Your task to perform on an android device: Show the shopping cart on bestbuy.com. Search for "usb-c to usb-a" on bestbuy.com, select the first entry, add it to the cart, then select checkout. Image 0: 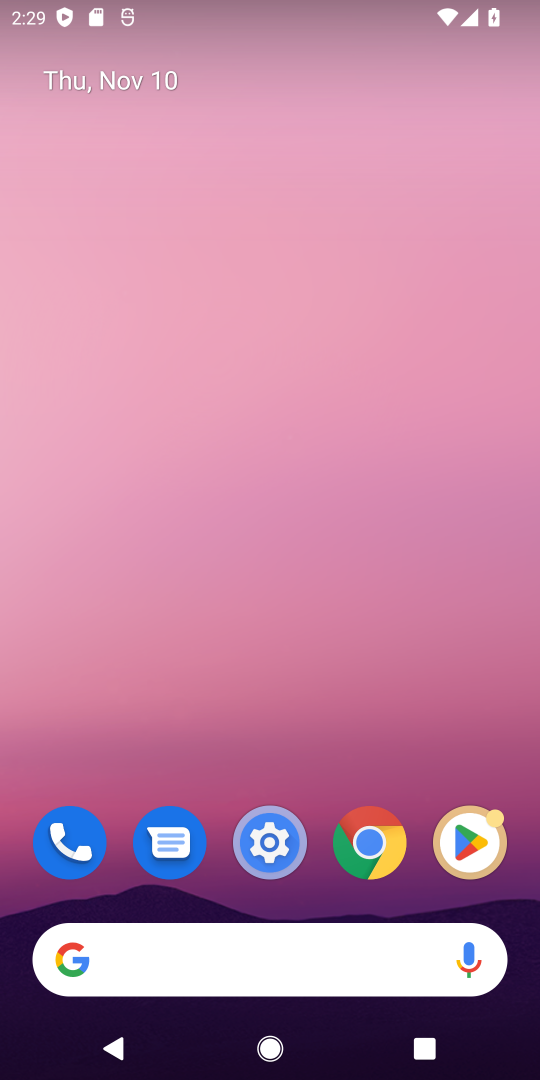
Step 0: press home button
Your task to perform on an android device: Show the shopping cart on bestbuy.com. Search for "usb-c to usb-a" on bestbuy.com, select the first entry, add it to the cart, then select checkout. Image 1: 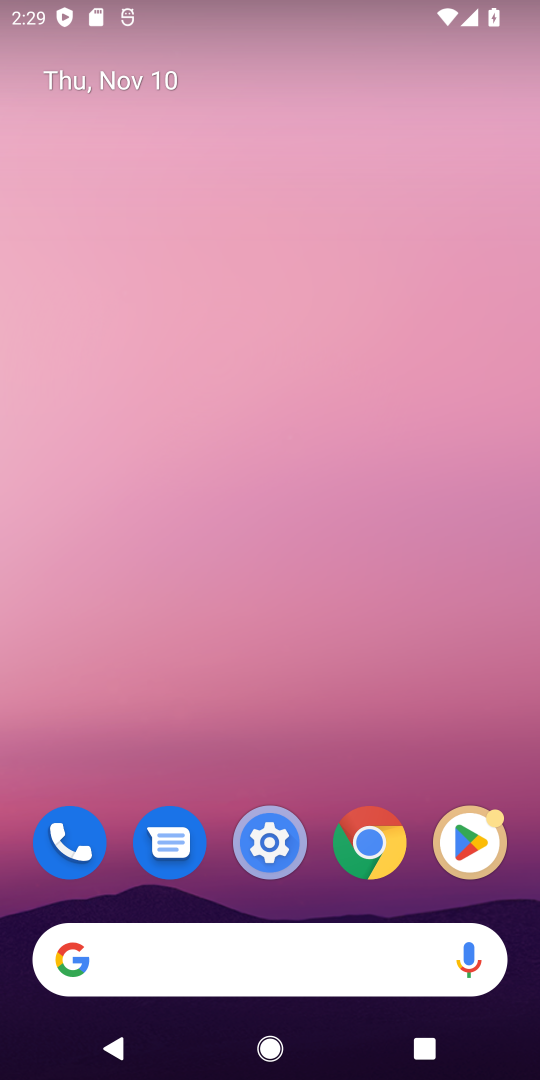
Step 1: click (102, 950)
Your task to perform on an android device: Show the shopping cart on bestbuy.com. Search for "usb-c to usb-a" on bestbuy.com, select the first entry, add it to the cart, then select checkout. Image 2: 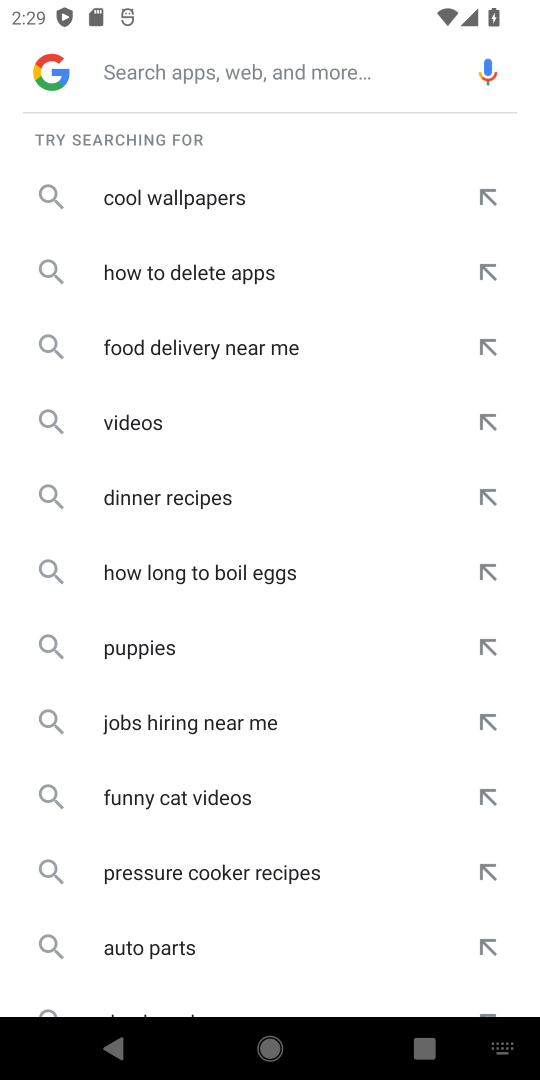
Step 2: type "bestbuy.com"
Your task to perform on an android device: Show the shopping cart on bestbuy.com. Search for "usb-c to usb-a" on bestbuy.com, select the first entry, add it to the cart, then select checkout. Image 3: 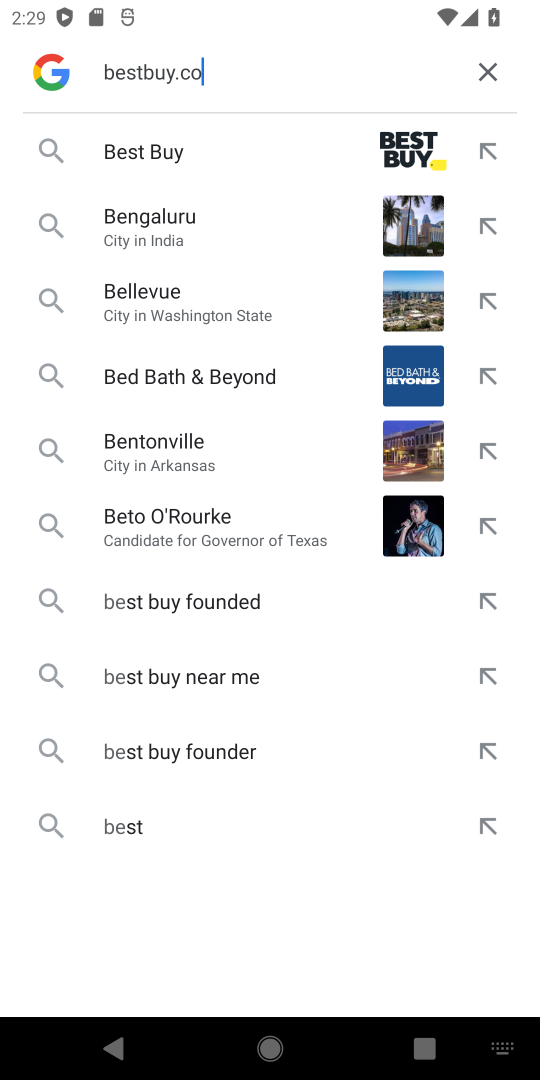
Step 3: press enter
Your task to perform on an android device: Show the shopping cart on bestbuy.com. Search for "usb-c to usb-a" on bestbuy.com, select the first entry, add it to the cart, then select checkout. Image 4: 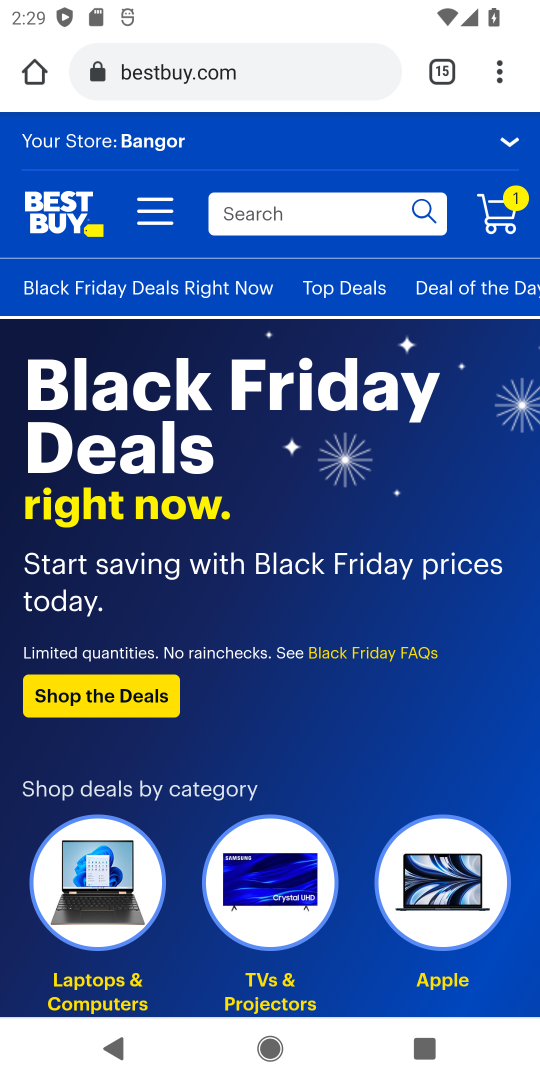
Step 4: click (501, 208)
Your task to perform on an android device: Show the shopping cart on bestbuy.com. Search for "usb-c to usb-a" on bestbuy.com, select the first entry, add it to the cart, then select checkout. Image 5: 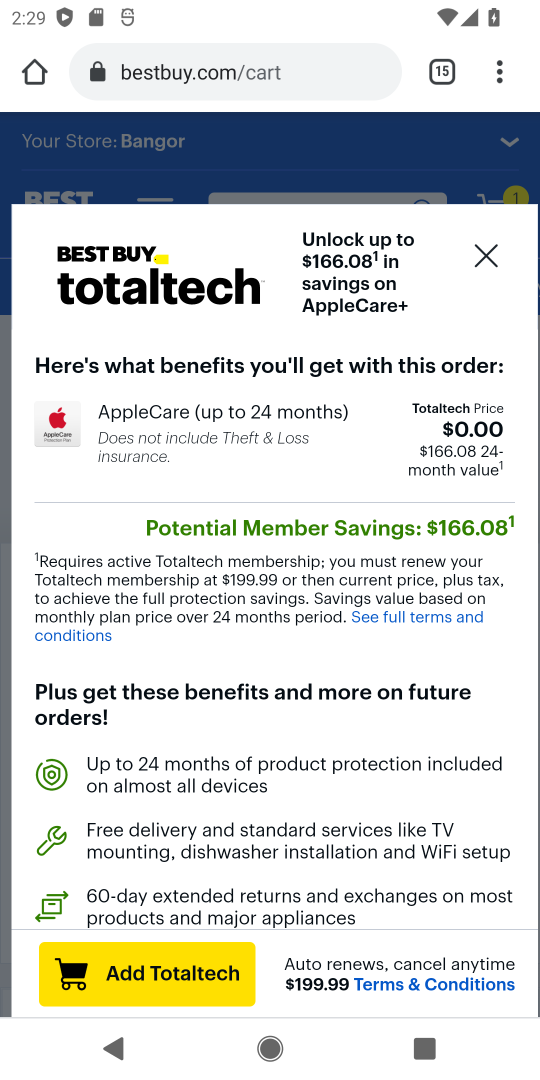
Step 5: click (481, 256)
Your task to perform on an android device: Show the shopping cart on bestbuy.com. Search for "usb-c to usb-a" on bestbuy.com, select the first entry, add it to the cart, then select checkout. Image 6: 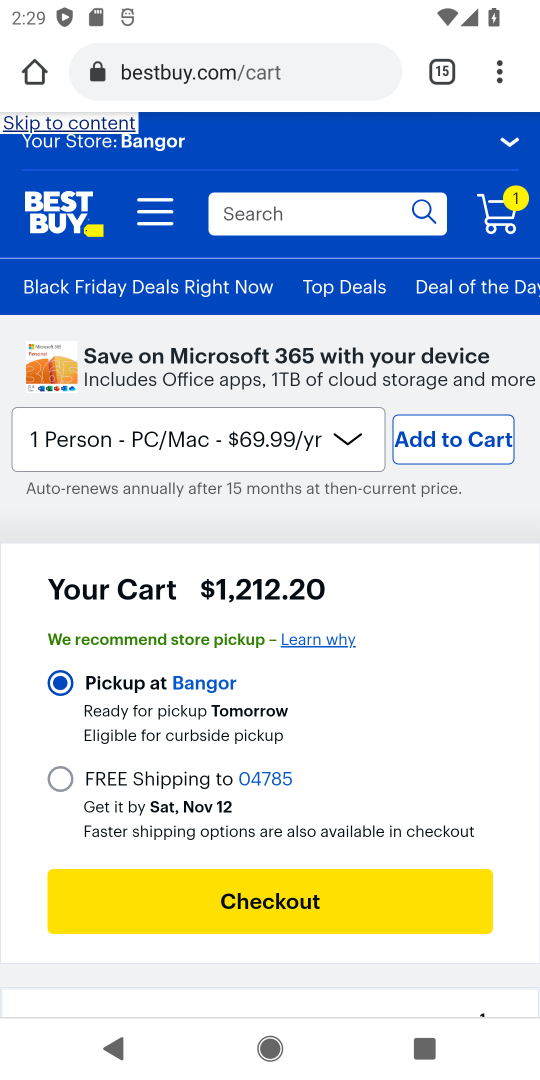
Step 6: click (263, 218)
Your task to perform on an android device: Show the shopping cart on bestbuy.com. Search for "usb-c to usb-a" on bestbuy.com, select the first entry, add it to the cart, then select checkout. Image 7: 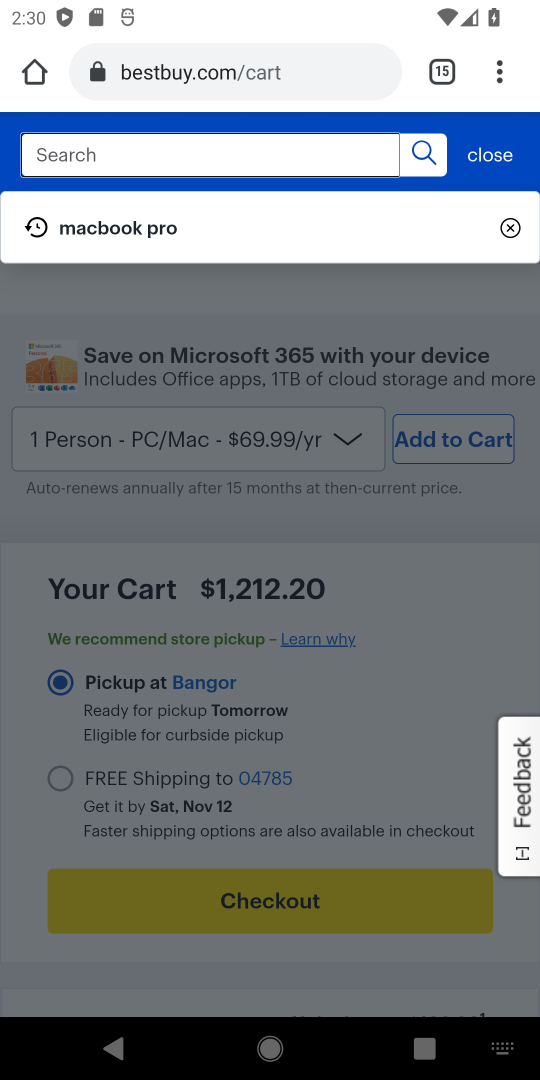
Step 7: type "usb-c to usb"
Your task to perform on an android device: Show the shopping cart on bestbuy.com. Search for "usb-c to usb-a" on bestbuy.com, select the first entry, add it to the cart, then select checkout. Image 8: 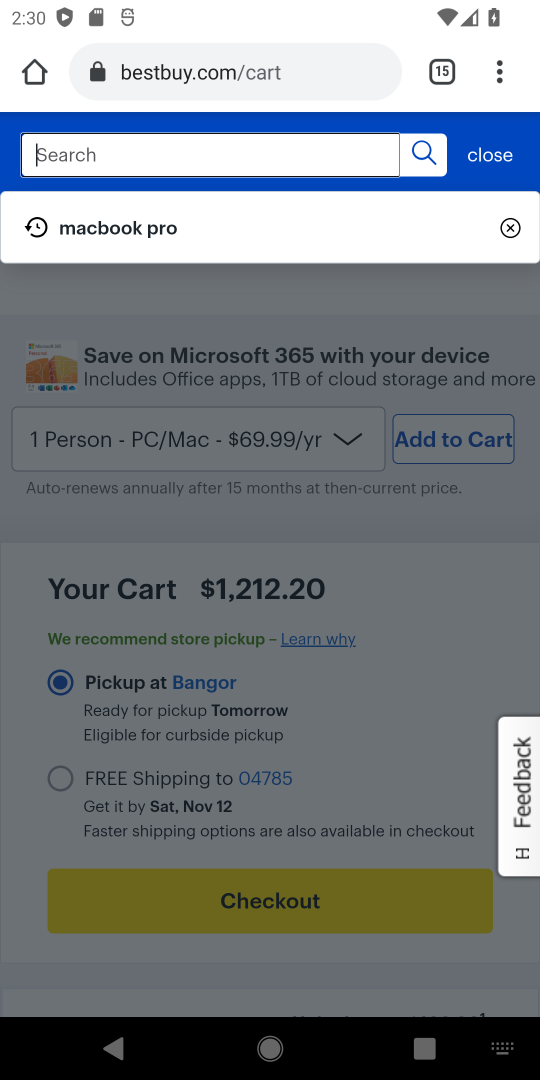
Step 8: press enter
Your task to perform on an android device: Show the shopping cart on bestbuy.com. Search for "usb-c to usb-a" on bestbuy.com, select the first entry, add it to the cart, then select checkout. Image 9: 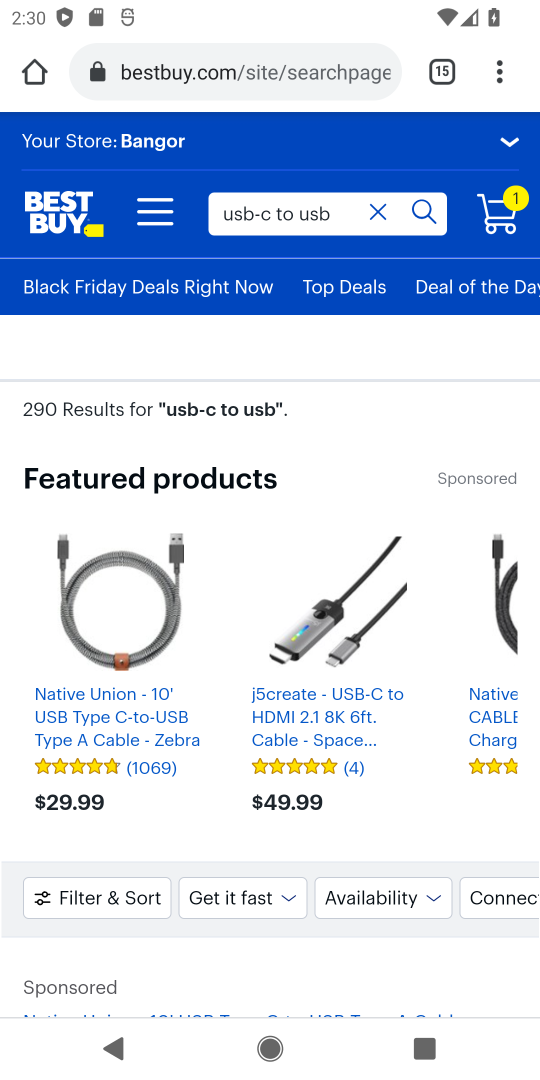
Step 9: drag from (357, 803) to (366, 345)
Your task to perform on an android device: Show the shopping cart on bestbuy.com. Search for "usb-c to usb-a" on bestbuy.com, select the first entry, add it to the cart, then select checkout. Image 10: 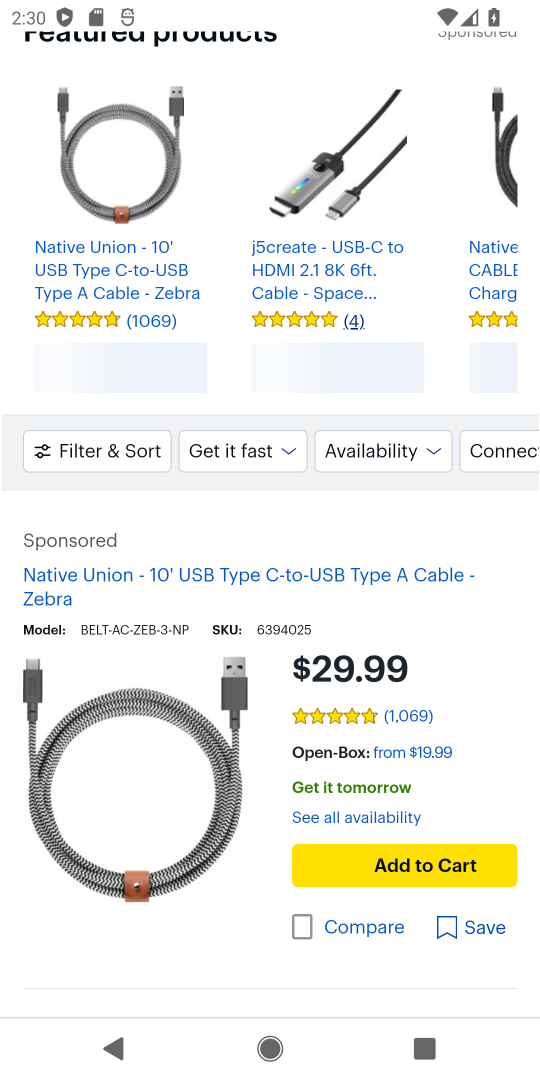
Step 10: drag from (342, 877) to (340, 523)
Your task to perform on an android device: Show the shopping cart on bestbuy.com. Search for "usb-c to usb-a" on bestbuy.com, select the first entry, add it to the cart, then select checkout. Image 11: 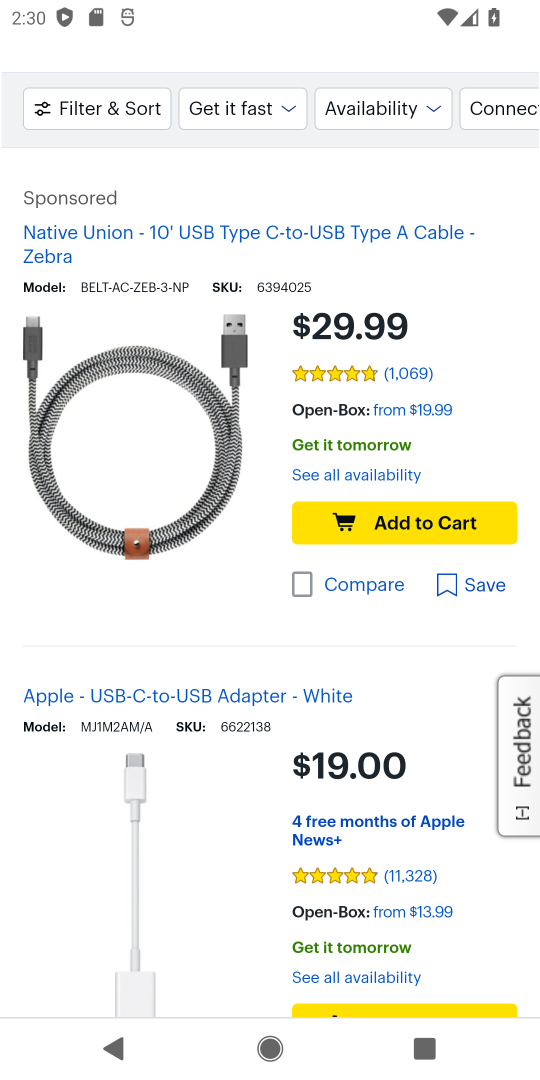
Step 11: click (413, 526)
Your task to perform on an android device: Show the shopping cart on bestbuy.com. Search for "usb-c to usb-a" on bestbuy.com, select the first entry, add it to the cart, then select checkout. Image 12: 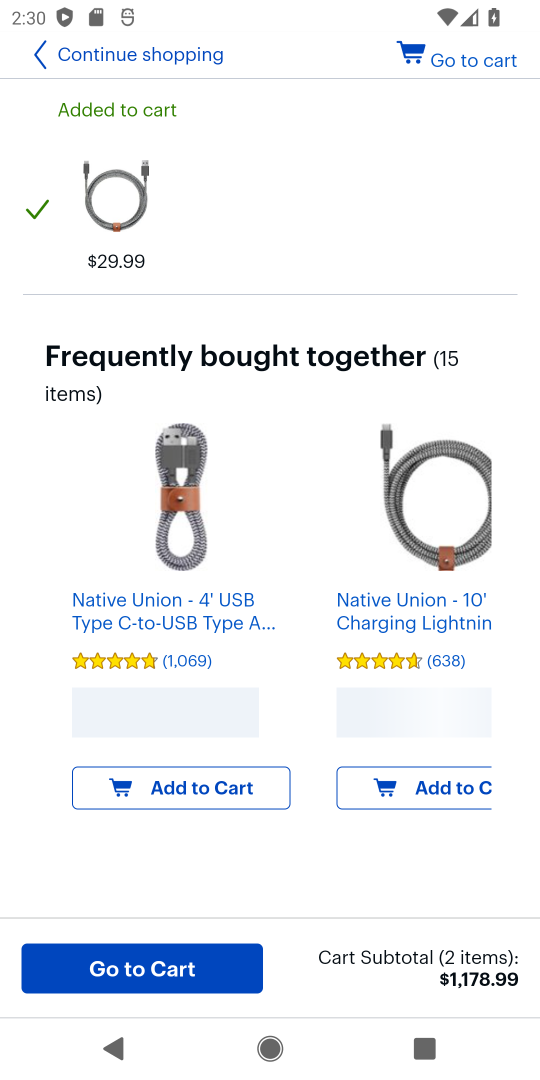
Step 12: task complete